Your task to perform on an android device: Check the news Image 0: 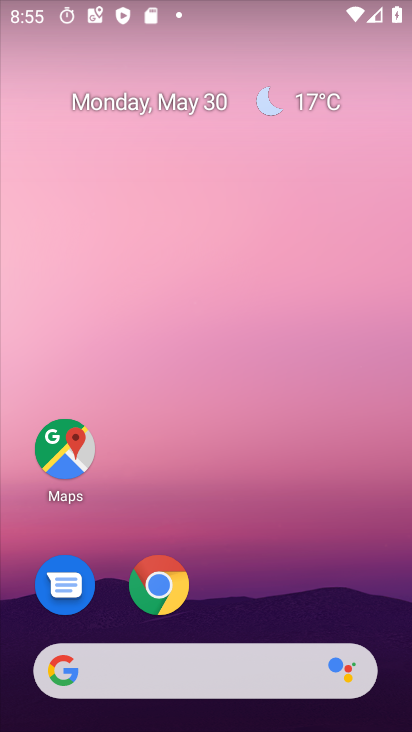
Step 0: drag from (213, 604) to (207, 85)
Your task to perform on an android device: Check the news Image 1: 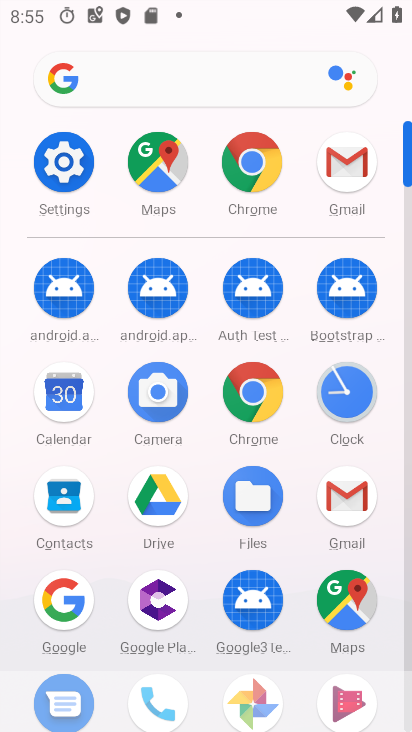
Step 1: click (141, 63)
Your task to perform on an android device: Check the news Image 2: 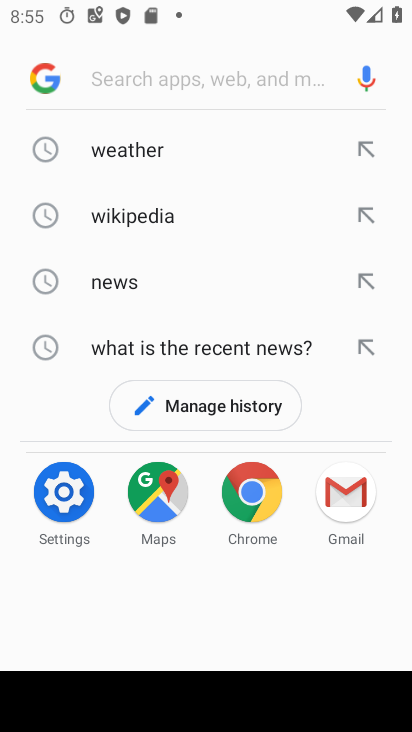
Step 2: click (119, 281)
Your task to perform on an android device: Check the news Image 3: 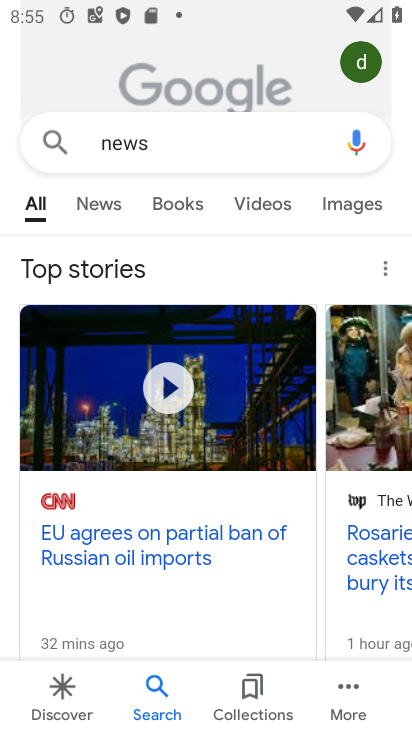
Step 3: task complete